Your task to perform on an android device: Open Google Chrome and click the shortcut for Amazon.com Image 0: 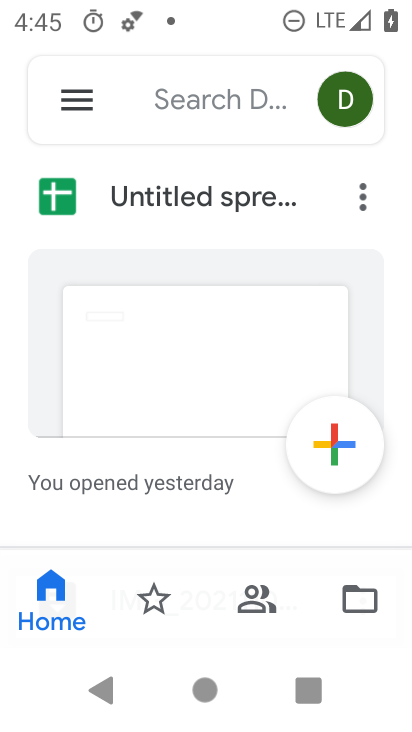
Step 0: press home button
Your task to perform on an android device: Open Google Chrome and click the shortcut for Amazon.com Image 1: 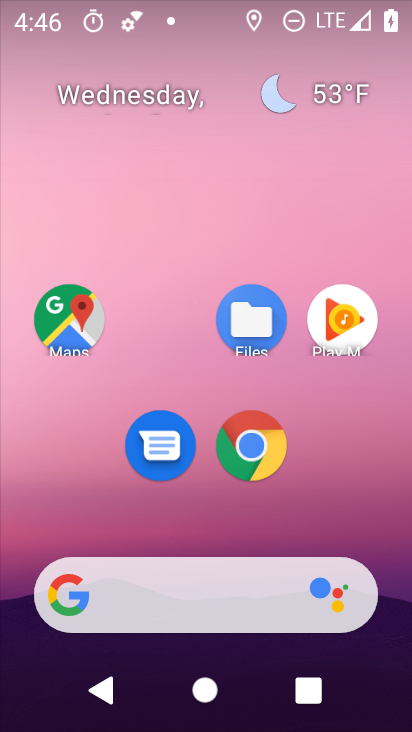
Step 1: drag from (227, 523) to (269, 43)
Your task to perform on an android device: Open Google Chrome and click the shortcut for Amazon.com Image 2: 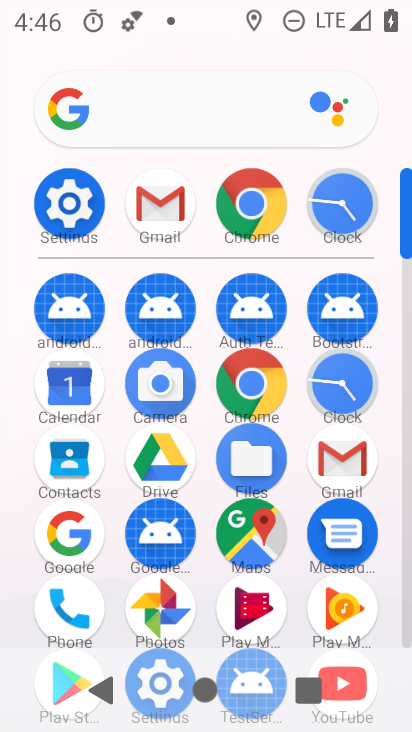
Step 2: click (254, 188)
Your task to perform on an android device: Open Google Chrome and click the shortcut for Amazon.com Image 3: 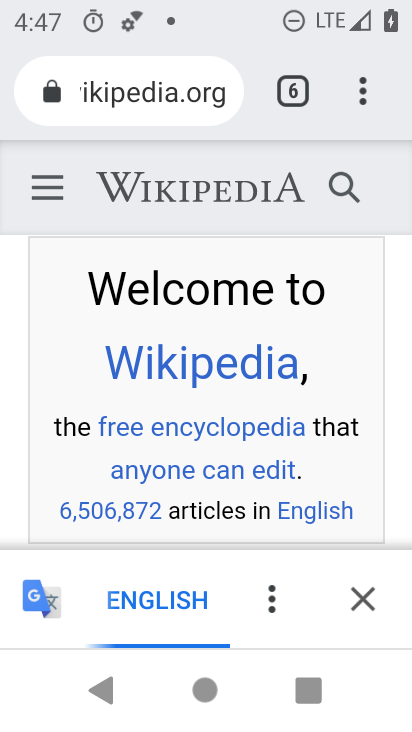
Step 3: click (289, 92)
Your task to perform on an android device: Open Google Chrome and click the shortcut for Amazon.com Image 4: 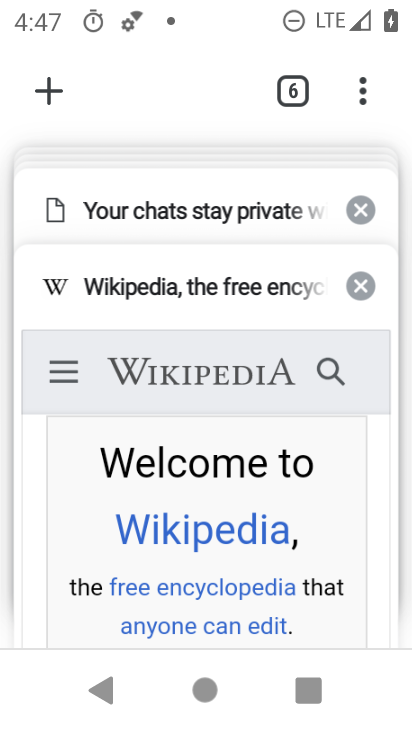
Step 4: click (38, 87)
Your task to perform on an android device: Open Google Chrome and click the shortcut for Amazon.com Image 5: 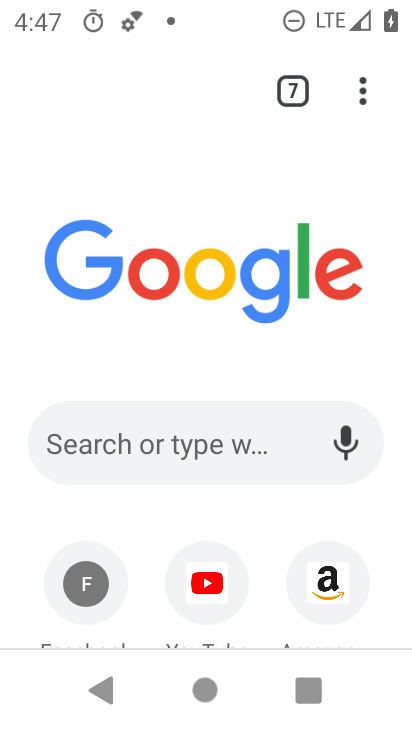
Step 5: click (334, 574)
Your task to perform on an android device: Open Google Chrome and click the shortcut for Amazon.com Image 6: 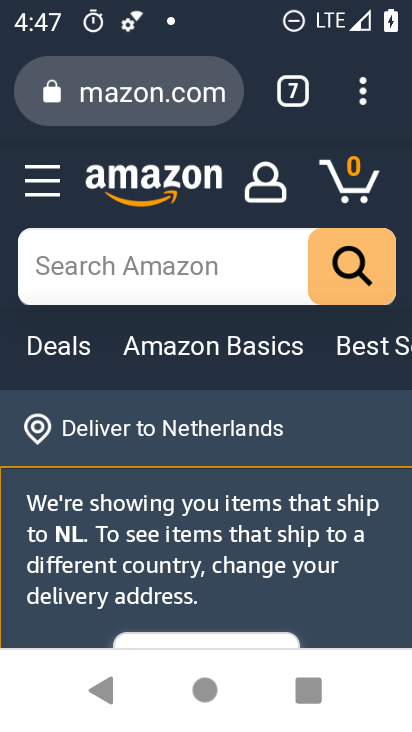
Step 6: task complete